Your task to perform on an android device: Open Google Chrome Image 0: 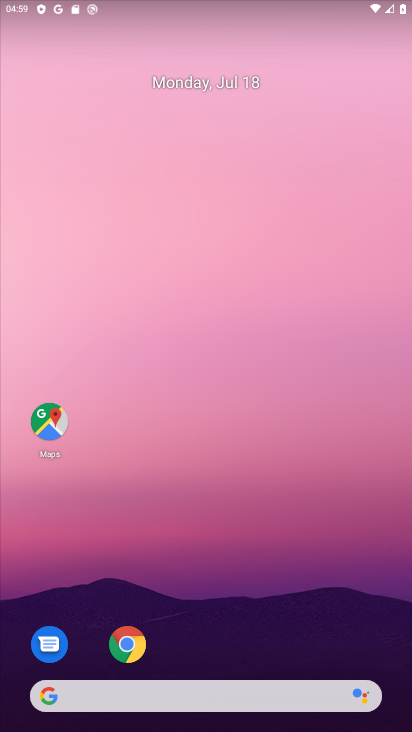
Step 0: press home button
Your task to perform on an android device: Open Google Chrome Image 1: 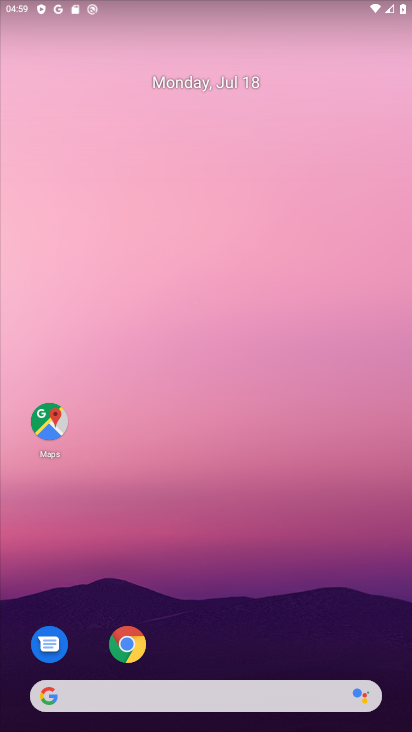
Step 1: drag from (225, 650) to (251, 1)
Your task to perform on an android device: Open Google Chrome Image 2: 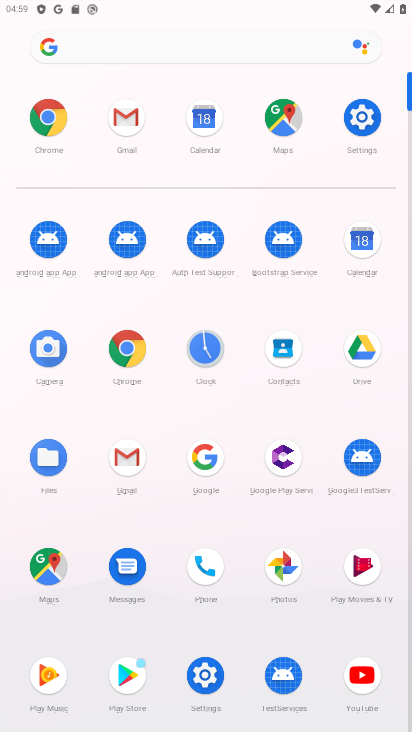
Step 2: click (41, 125)
Your task to perform on an android device: Open Google Chrome Image 3: 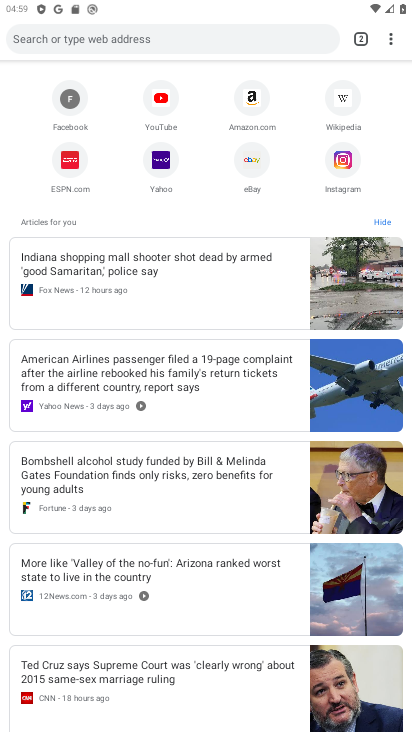
Step 3: task complete